Your task to perform on an android device: Open the calendar app, open the side menu, and click the "Day" option Image 0: 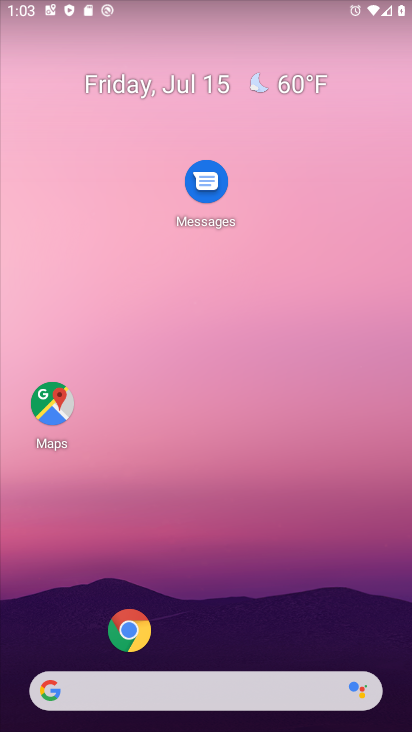
Step 0: drag from (39, 612) to (323, 49)
Your task to perform on an android device: Open the calendar app, open the side menu, and click the "Day" option Image 1: 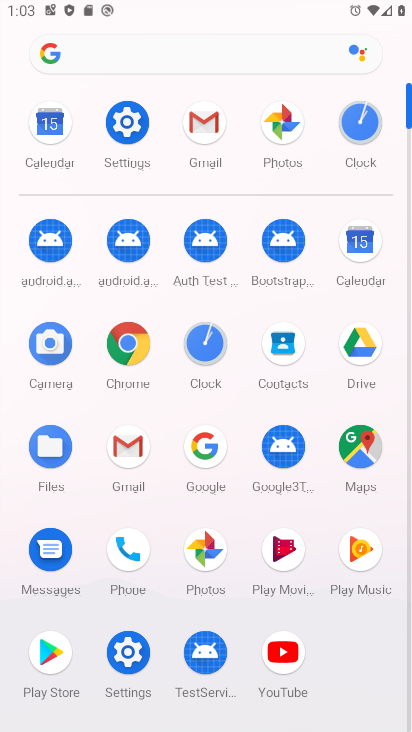
Step 1: click (363, 258)
Your task to perform on an android device: Open the calendar app, open the side menu, and click the "Day" option Image 2: 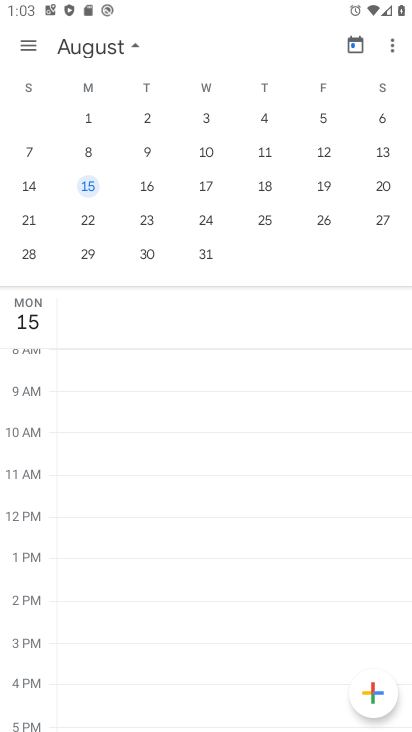
Step 2: click (19, 25)
Your task to perform on an android device: Open the calendar app, open the side menu, and click the "Day" option Image 3: 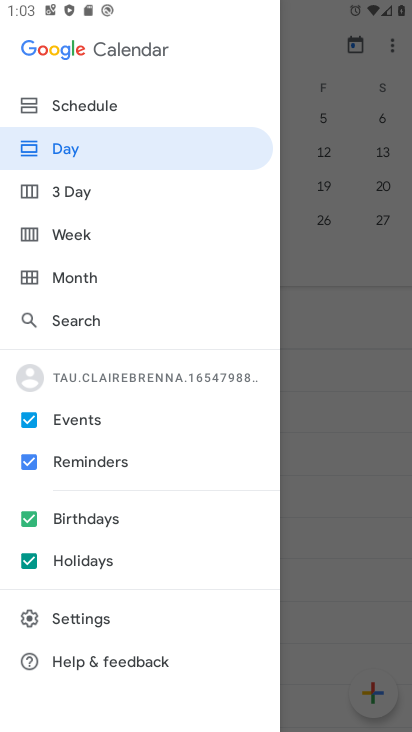
Step 3: click (68, 142)
Your task to perform on an android device: Open the calendar app, open the side menu, and click the "Day" option Image 4: 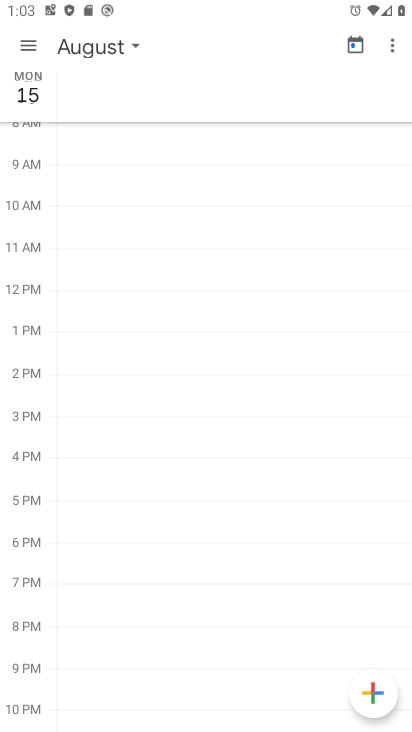
Step 4: click (104, 38)
Your task to perform on an android device: Open the calendar app, open the side menu, and click the "Day" option Image 5: 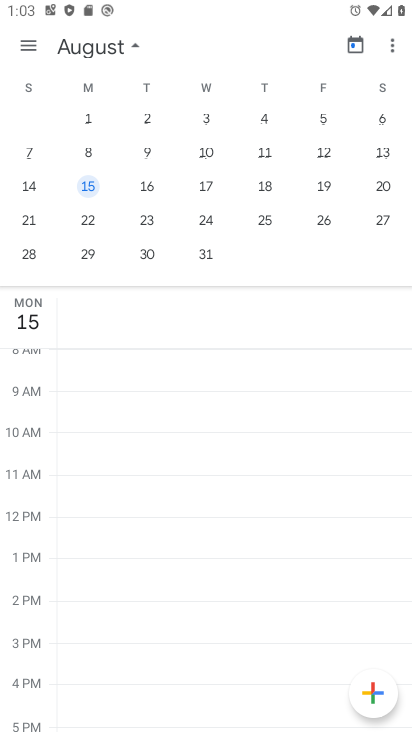
Step 5: task complete